Your task to perform on an android device: Go to Android settings Image 0: 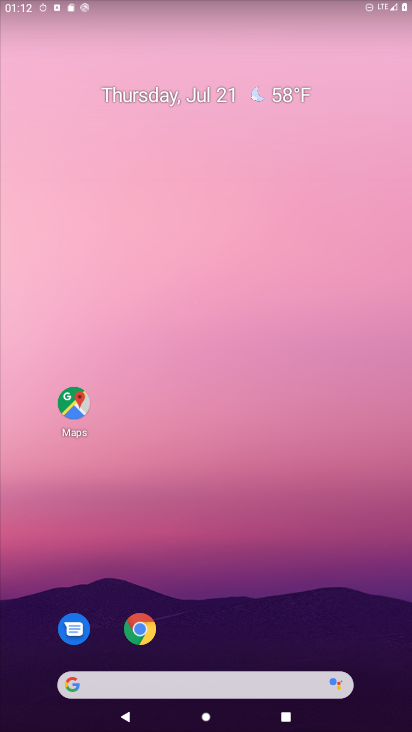
Step 0: drag from (205, 620) to (205, 186)
Your task to perform on an android device: Go to Android settings Image 1: 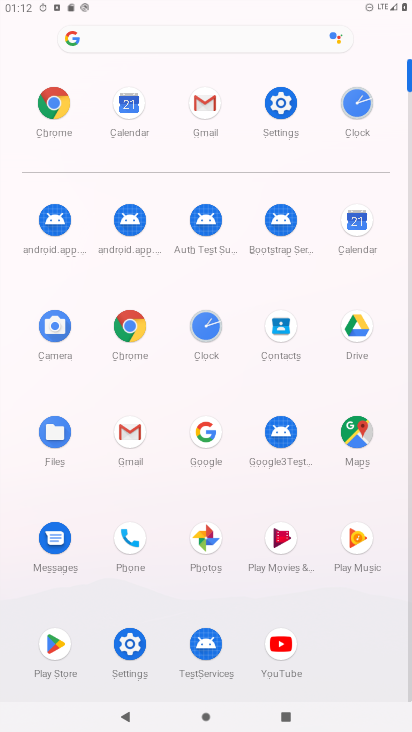
Step 1: click (280, 107)
Your task to perform on an android device: Go to Android settings Image 2: 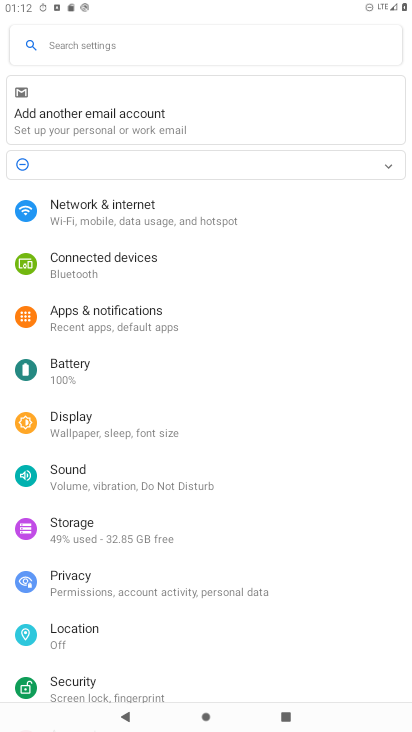
Step 2: task complete